Your task to perform on an android device: delete location history Image 0: 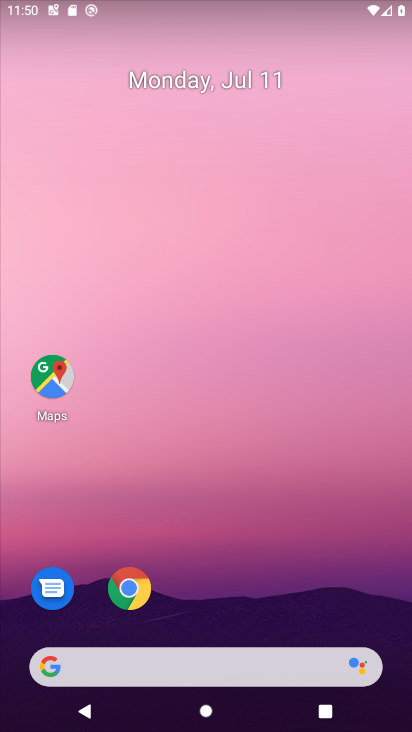
Step 0: press back button
Your task to perform on an android device: delete location history Image 1: 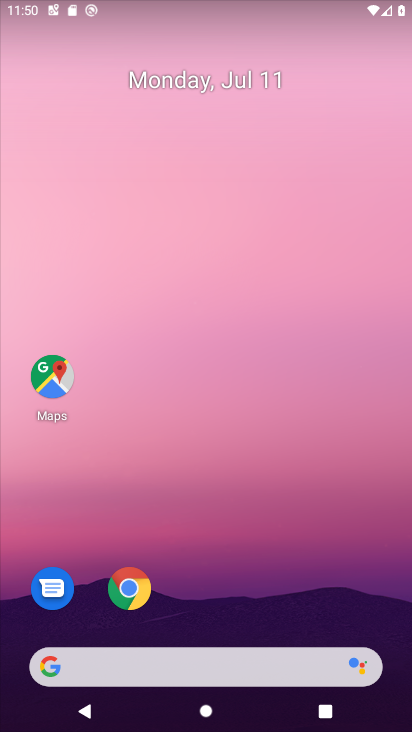
Step 1: drag from (277, 655) to (279, 162)
Your task to perform on an android device: delete location history Image 2: 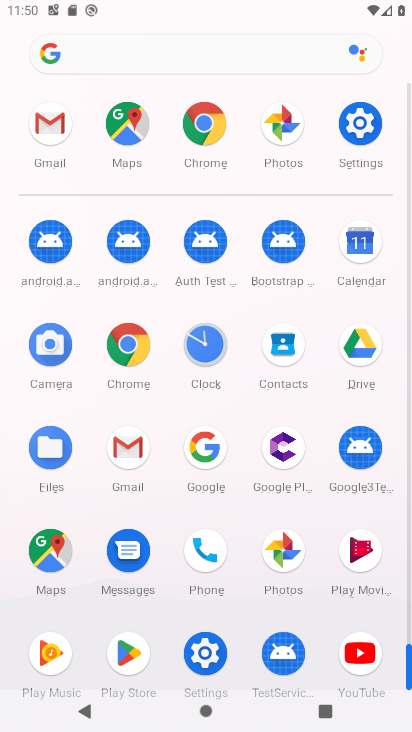
Step 2: click (45, 566)
Your task to perform on an android device: delete location history Image 3: 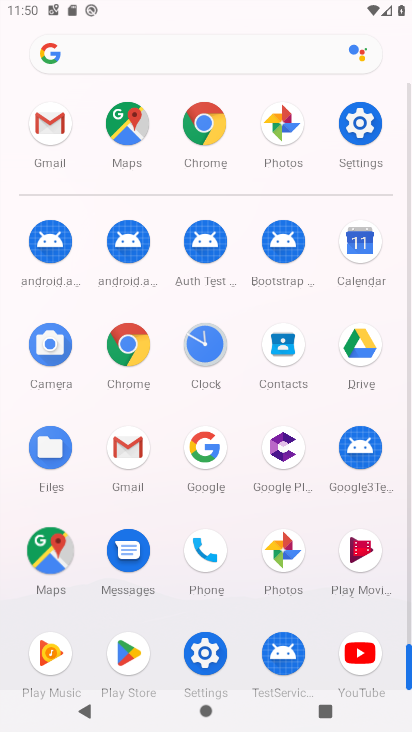
Step 3: click (47, 566)
Your task to perform on an android device: delete location history Image 4: 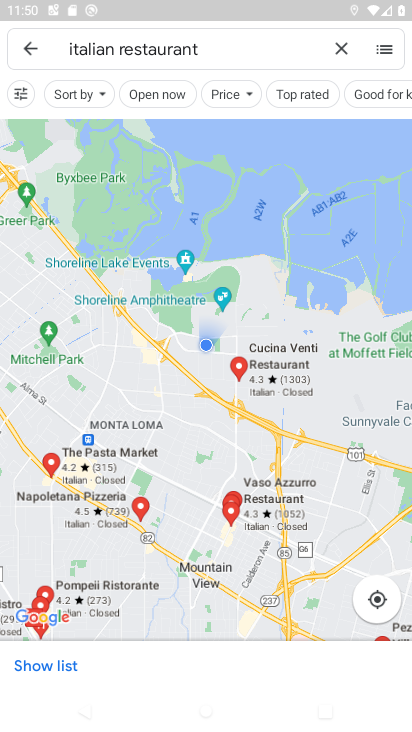
Step 4: click (27, 46)
Your task to perform on an android device: delete location history Image 5: 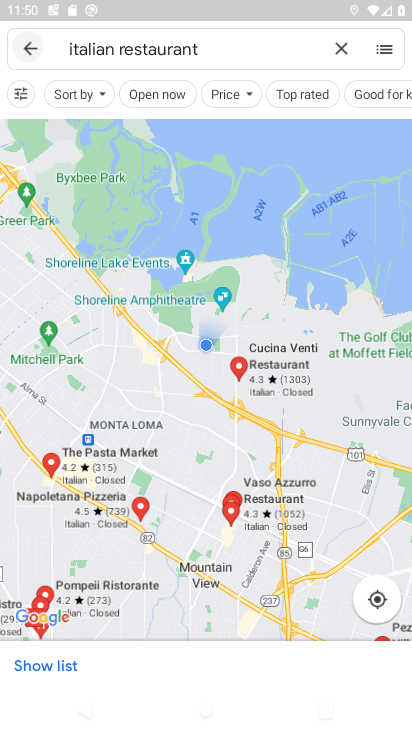
Step 5: click (27, 46)
Your task to perform on an android device: delete location history Image 6: 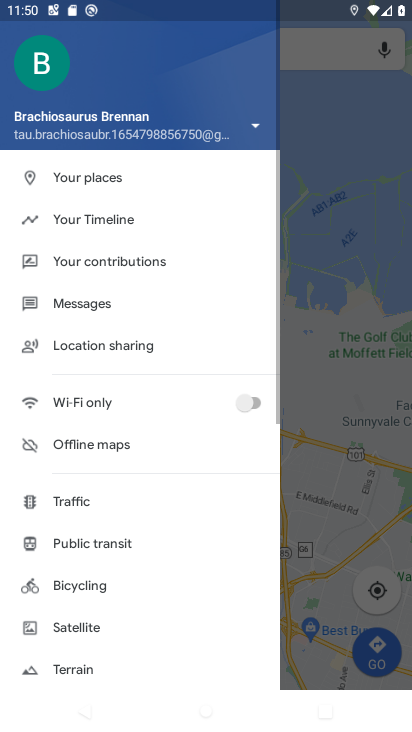
Step 6: click (34, 48)
Your task to perform on an android device: delete location history Image 7: 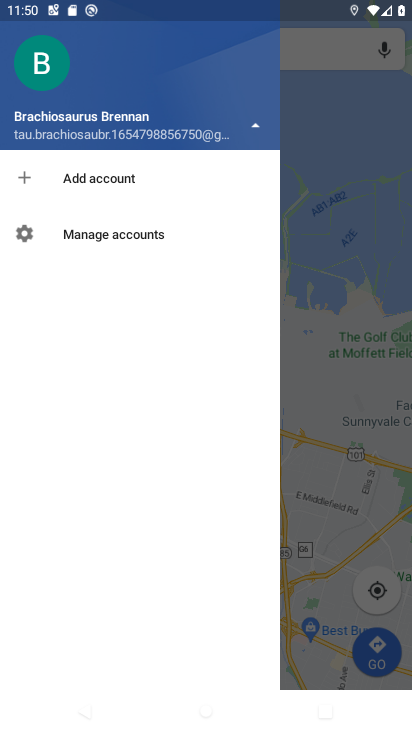
Step 7: press back button
Your task to perform on an android device: delete location history Image 8: 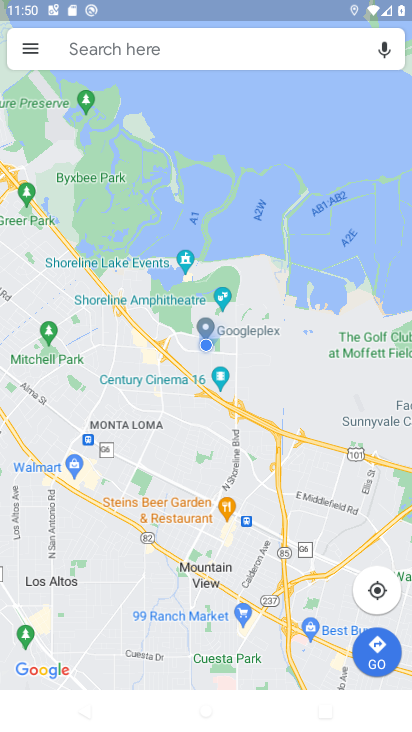
Step 8: click (35, 48)
Your task to perform on an android device: delete location history Image 9: 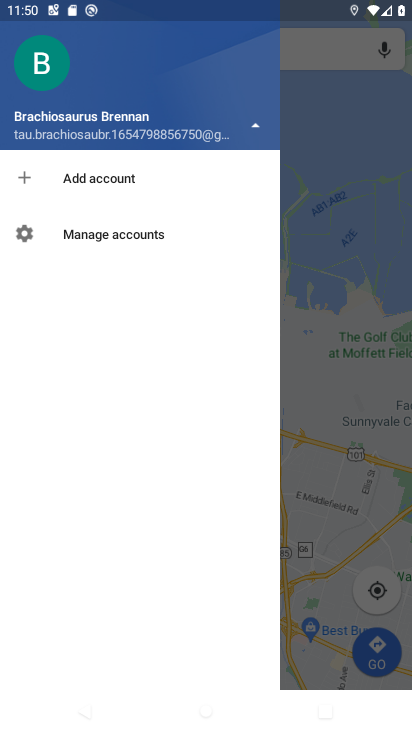
Step 9: press back button
Your task to perform on an android device: delete location history Image 10: 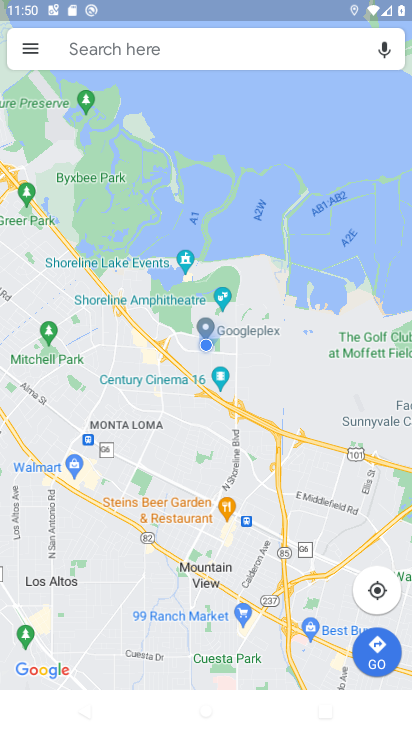
Step 10: press home button
Your task to perform on an android device: delete location history Image 11: 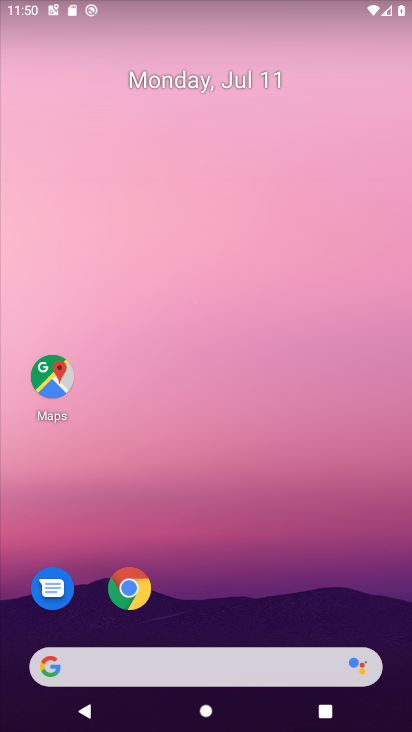
Step 11: drag from (200, 607) to (194, 70)
Your task to perform on an android device: delete location history Image 12: 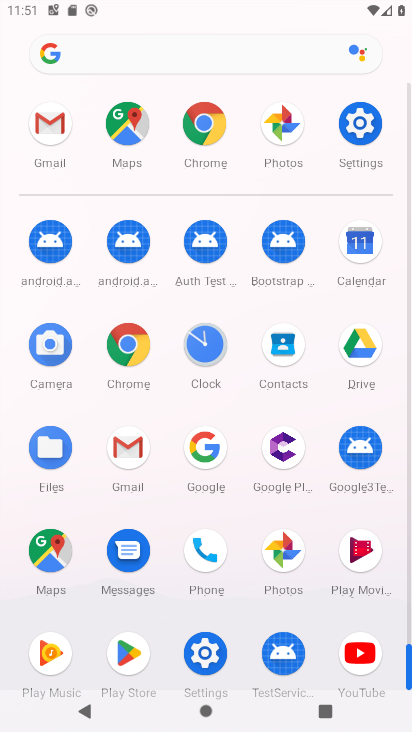
Step 12: click (353, 129)
Your task to perform on an android device: delete location history Image 13: 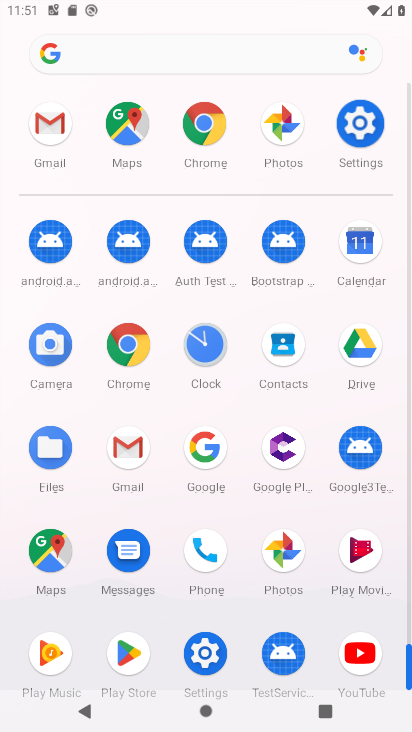
Step 13: click (357, 129)
Your task to perform on an android device: delete location history Image 14: 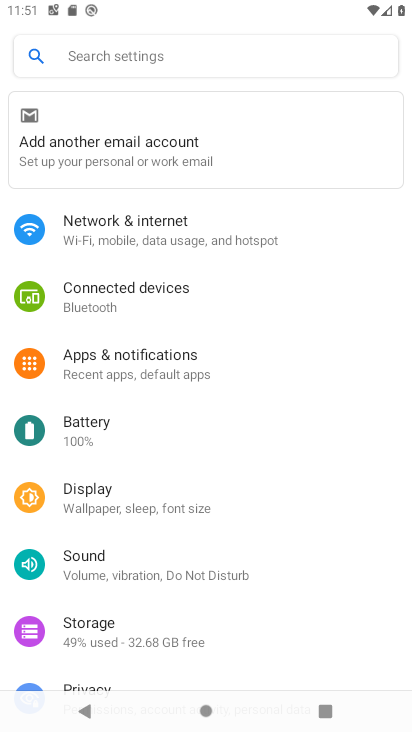
Step 14: drag from (110, 556) to (85, 252)
Your task to perform on an android device: delete location history Image 15: 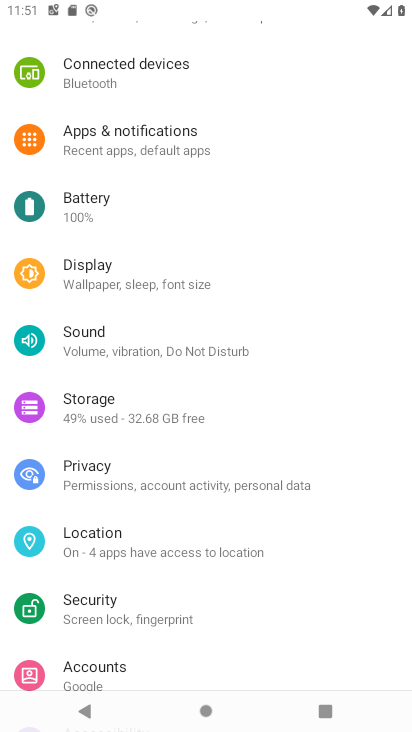
Step 15: drag from (124, 540) to (92, 262)
Your task to perform on an android device: delete location history Image 16: 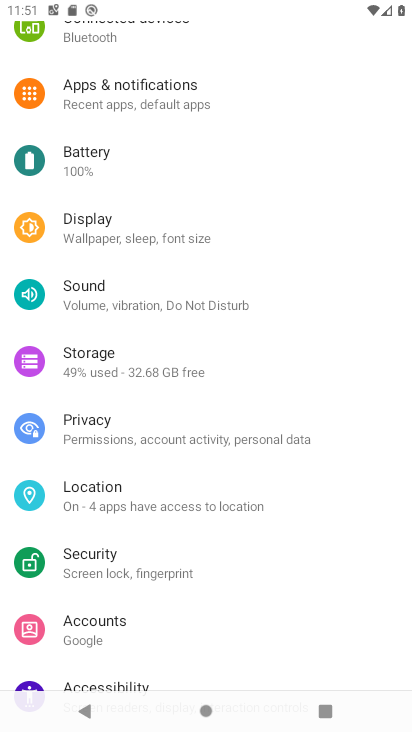
Step 16: click (99, 484)
Your task to perform on an android device: delete location history Image 17: 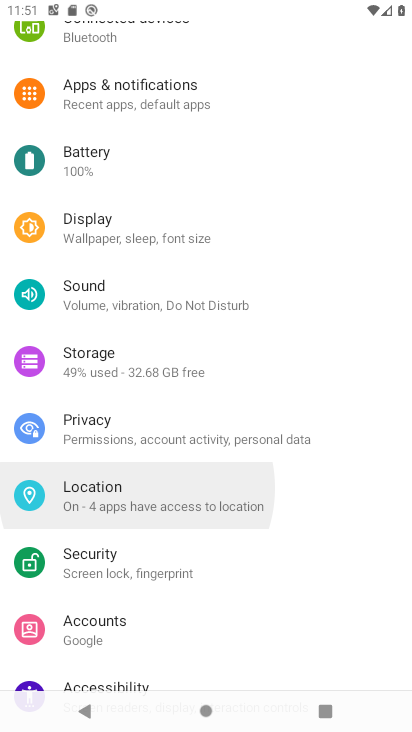
Step 17: click (104, 483)
Your task to perform on an android device: delete location history Image 18: 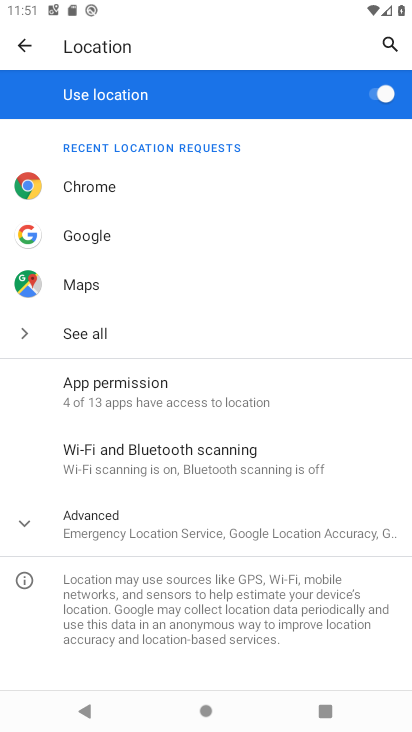
Step 18: click (125, 543)
Your task to perform on an android device: delete location history Image 19: 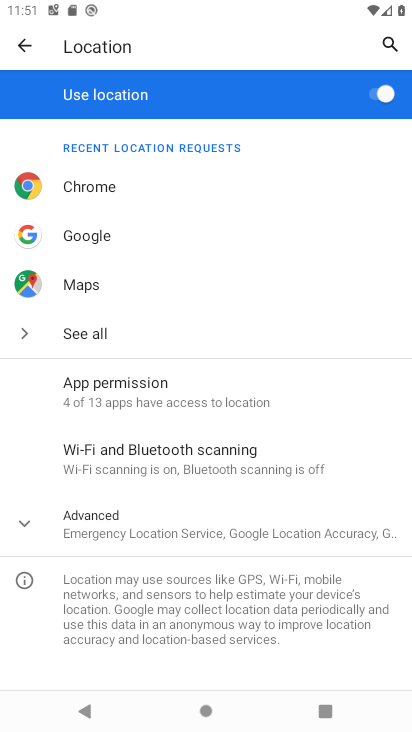
Step 19: click (104, 525)
Your task to perform on an android device: delete location history Image 20: 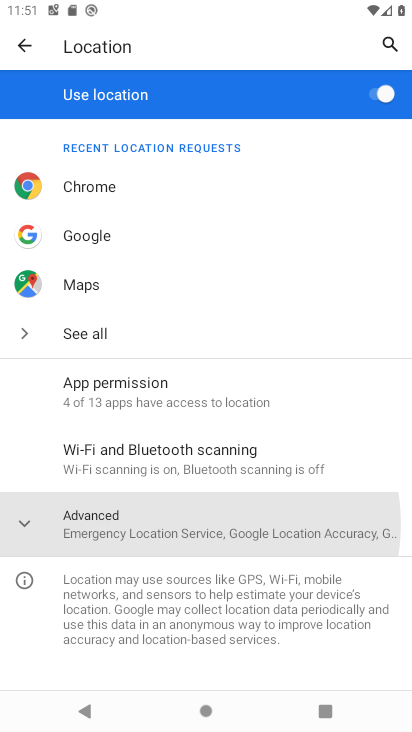
Step 20: click (112, 512)
Your task to perform on an android device: delete location history Image 21: 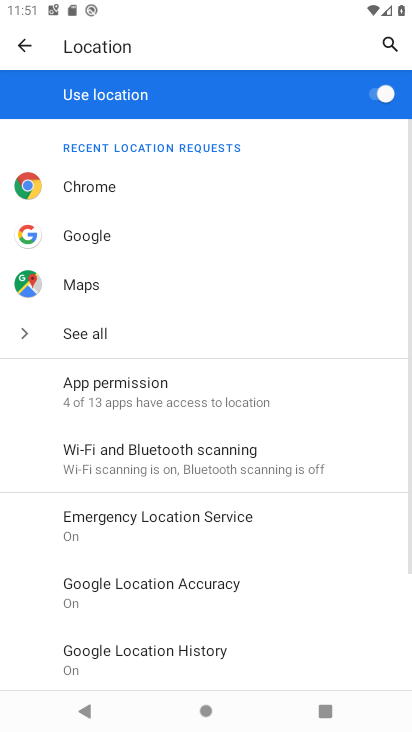
Step 21: drag from (221, 495) to (212, 164)
Your task to perform on an android device: delete location history Image 22: 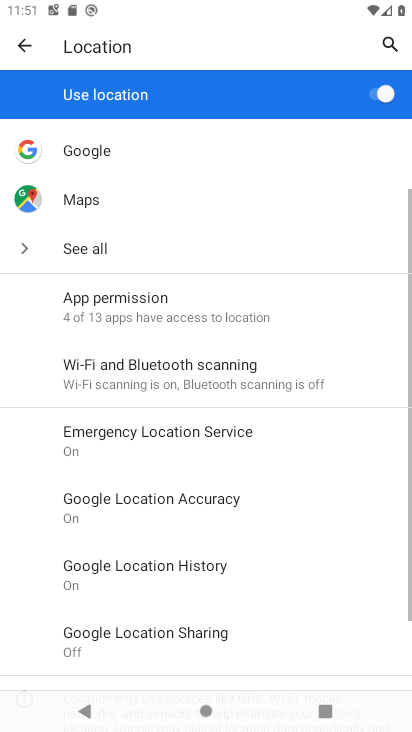
Step 22: drag from (227, 434) to (162, 206)
Your task to perform on an android device: delete location history Image 23: 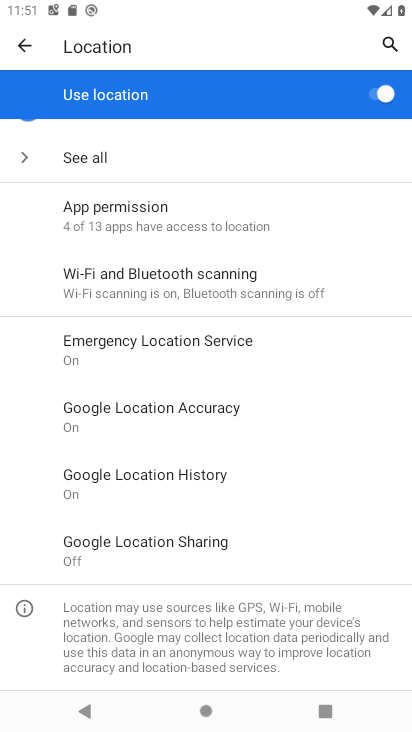
Step 23: click (86, 491)
Your task to perform on an android device: delete location history Image 24: 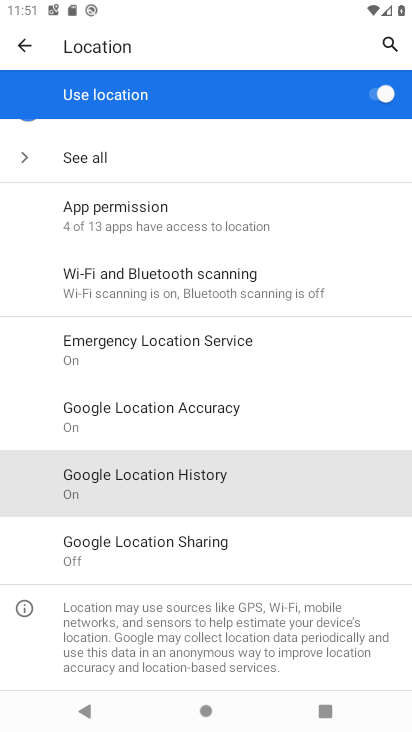
Step 24: click (86, 459)
Your task to perform on an android device: delete location history Image 25: 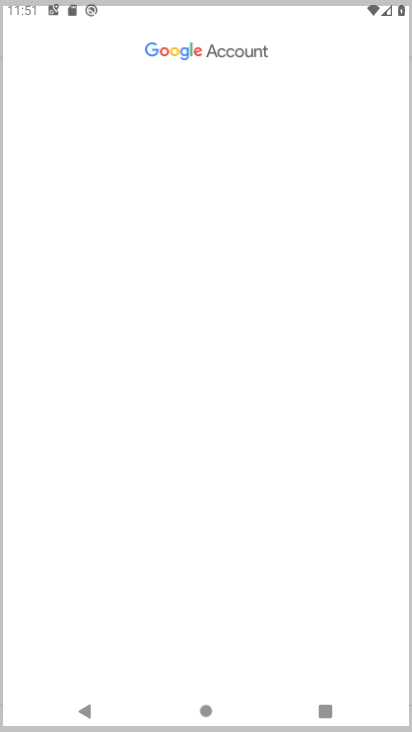
Step 25: task complete